Your task to perform on an android device: Open the web browser Image 0: 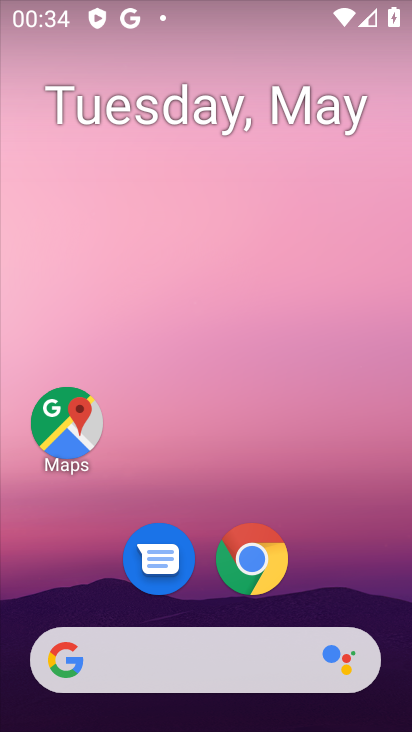
Step 0: click (272, 556)
Your task to perform on an android device: Open the web browser Image 1: 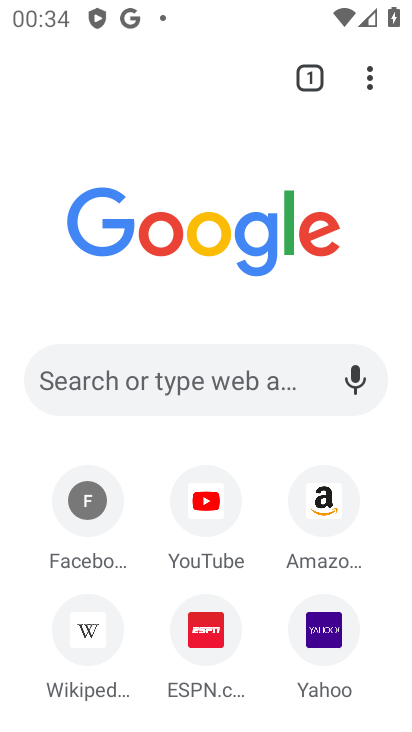
Step 1: task complete